Your task to perform on an android device: Open calendar and show me the first week of next month Image 0: 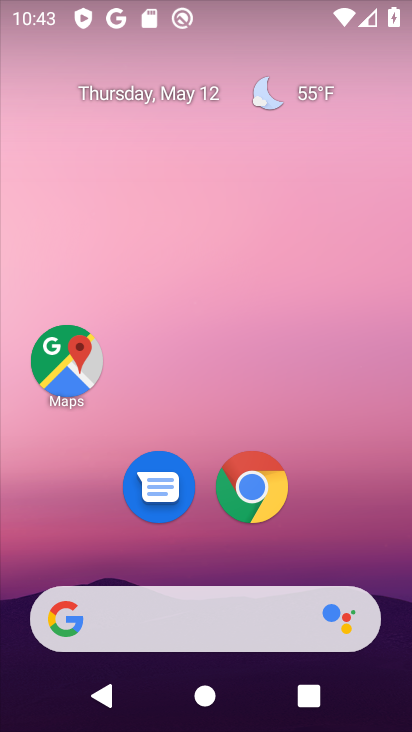
Step 0: drag from (354, 566) to (367, 7)
Your task to perform on an android device: Open calendar and show me the first week of next month Image 1: 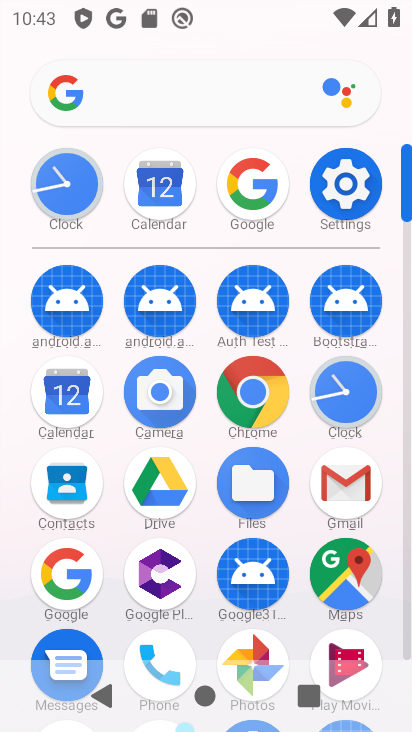
Step 1: click (157, 196)
Your task to perform on an android device: Open calendar and show me the first week of next month Image 2: 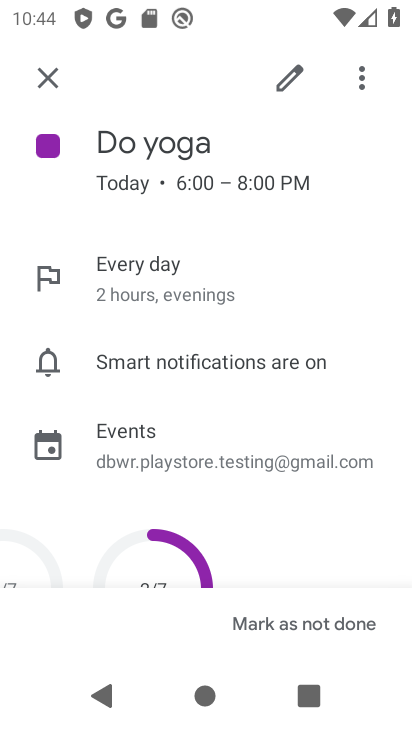
Step 2: click (39, 89)
Your task to perform on an android device: Open calendar and show me the first week of next month Image 3: 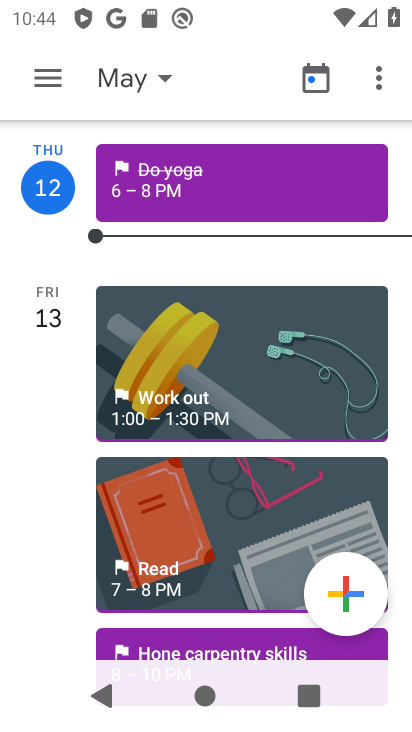
Step 3: click (164, 79)
Your task to perform on an android device: Open calendar and show me the first week of next month Image 4: 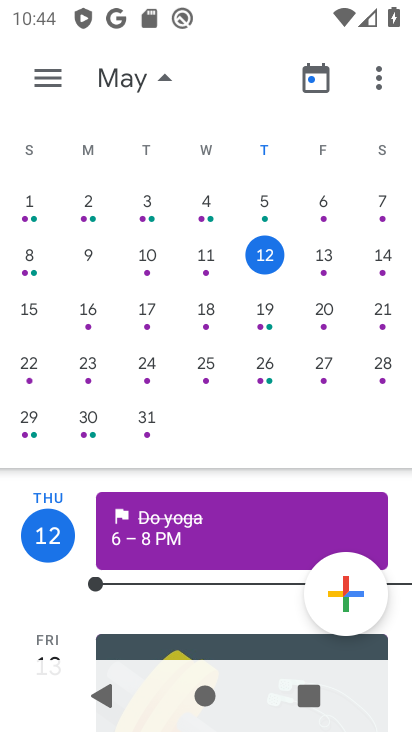
Step 4: drag from (288, 298) to (2, 350)
Your task to perform on an android device: Open calendar and show me the first week of next month Image 5: 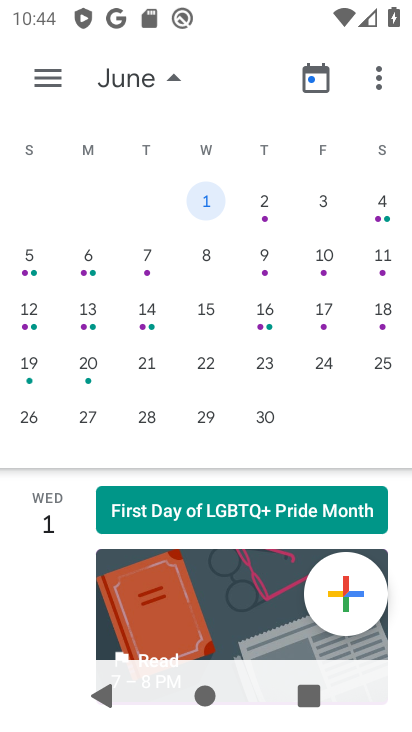
Step 5: click (50, 85)
Your task to perform on an android device: Open calendar and show me the first week of next month Image 6: 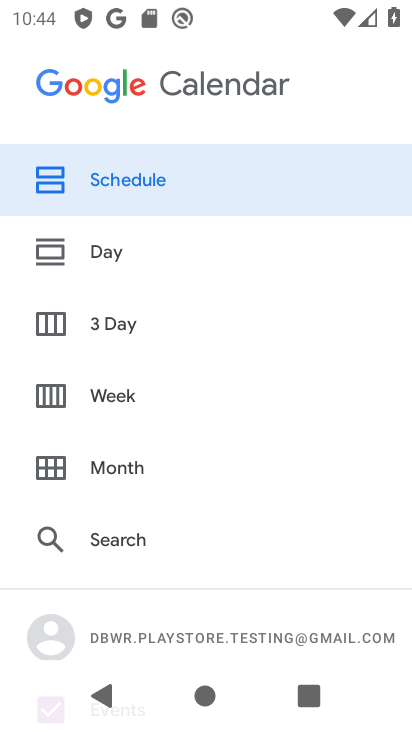
Step 6: click (114, 388)
Your task to perform on an android device: Open calendar and show me the first week of next month Image 7: 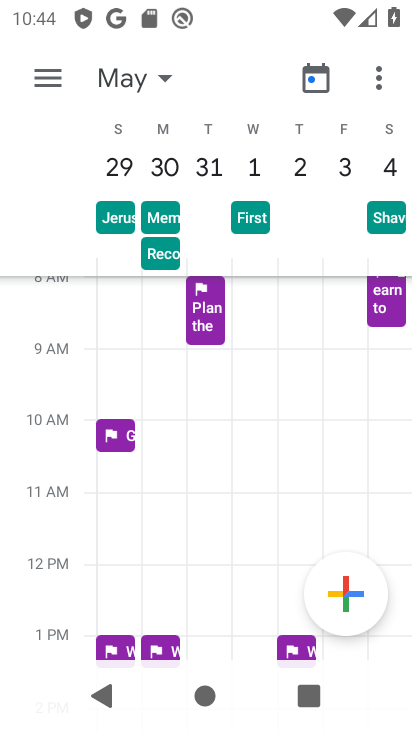
Step 7: task complete